Your task to perform on an android device: Open Wikipedia Image 0: 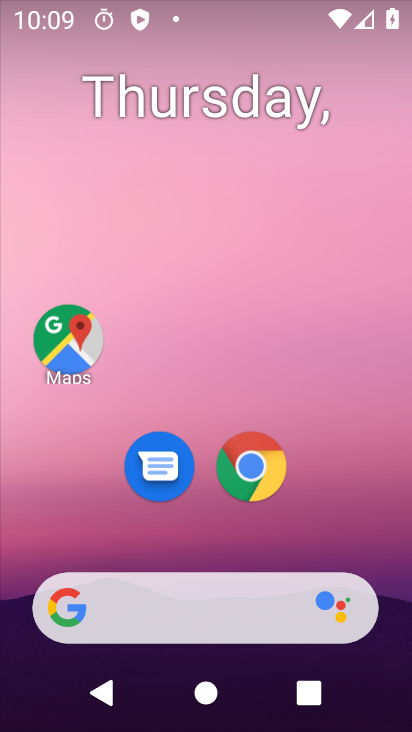
Step 0: drag from (157, 615) to (316, 75)
Your task to perform on an android device: Open Wikipedia Image 1: 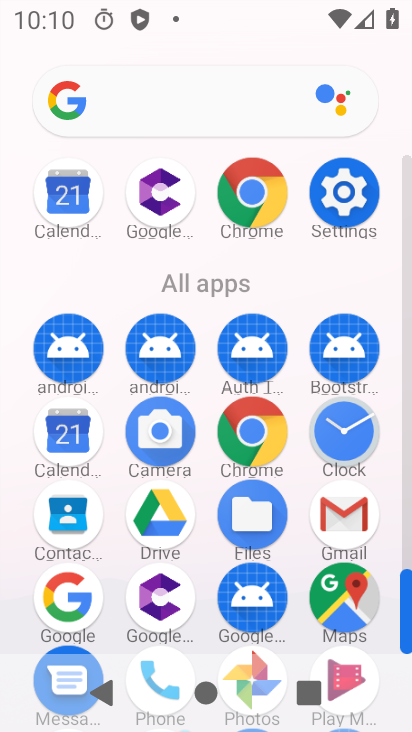
Step 1: click (258, 215)
Your task to perform on an android device: Open Wikipedia Image 2: 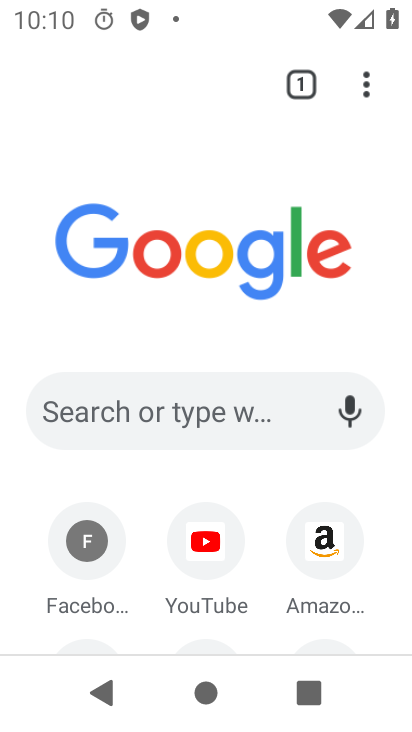
Step 2: drag from (156, 602) to (328, 172)
Your task to perform on an android device: Open Wikipedia Image 3: 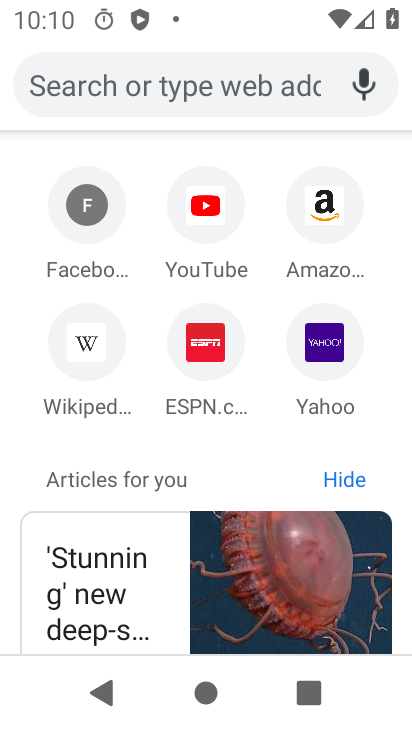
Step 3: click (75, 388)
Your task to perform on an android device: Open Wikipedia Image 4: 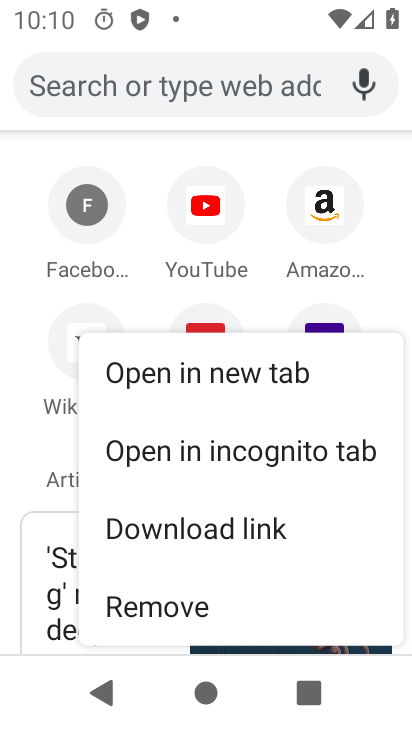
Step 4: click (69, 345)
Your task to perform on an android device: Open Wikipedia Image 5: 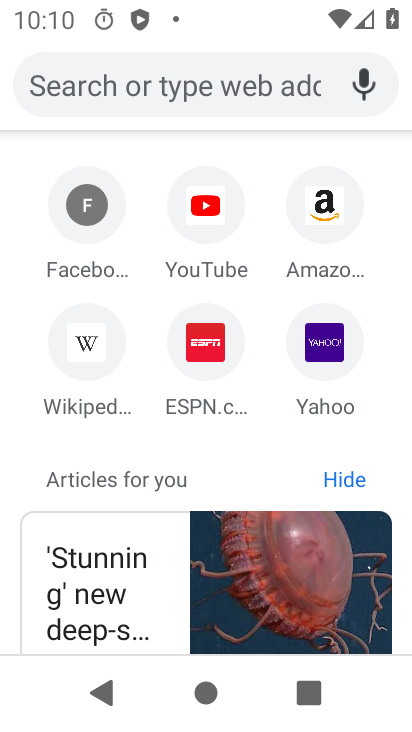
Step 5: click (89, 340)
Your task to perform on an android device: Open Wikipedia Image 6: 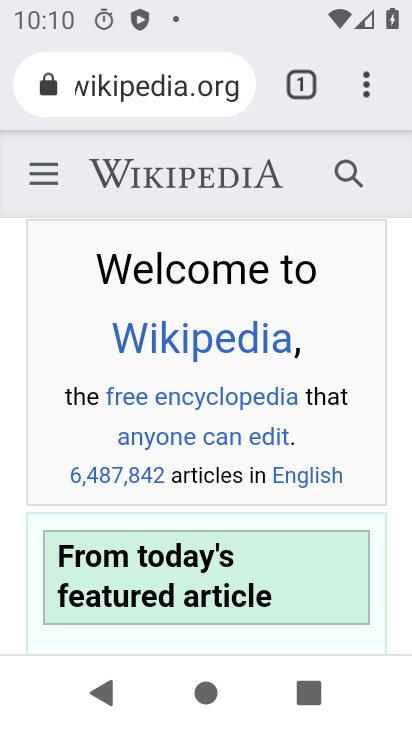
Step 6: task complete